Your task to perform on an android device: Open eBay Image 0: 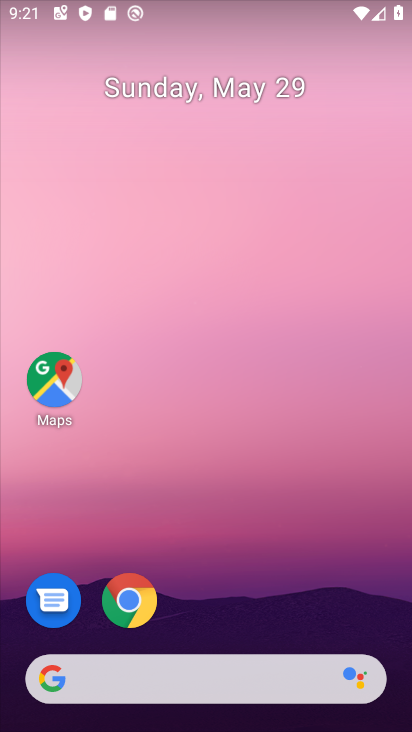
Step 0: click (121, 593)
Your task to perform on an android device: Open eBay Image 1: 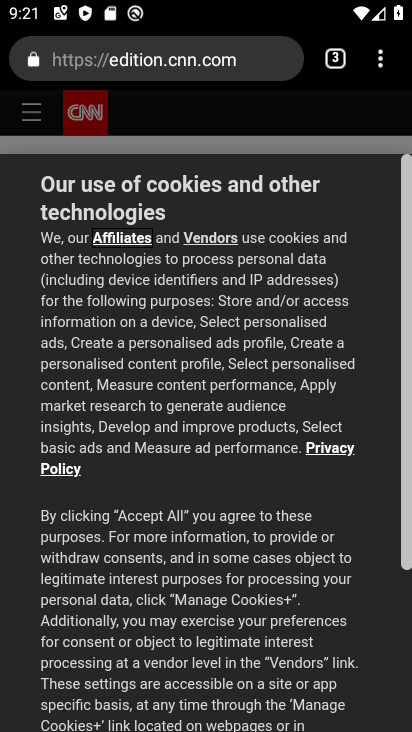
Step 1: click (382, 67)
Your task to perform on an android device: Open eBay Image 2: 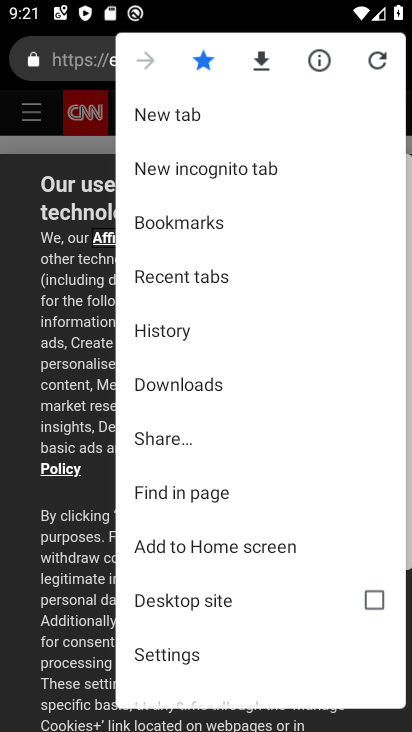
Step 2: click (172, 114)
Your task to perform on an android device: Open eBay Image 3: 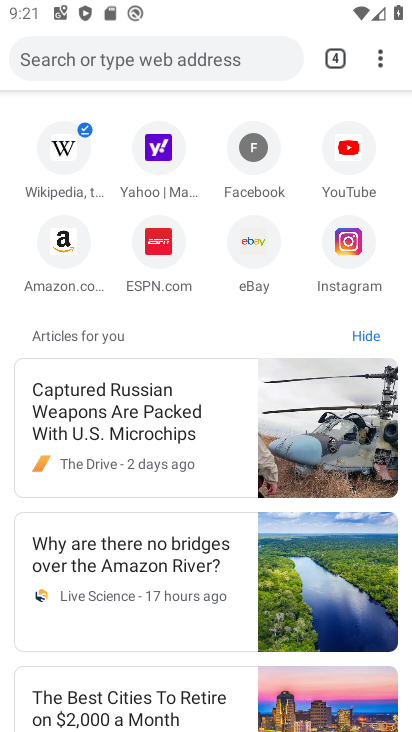
Step 3: click (259, 250)
Your task to perform on an android device: Open eBay Image 4: 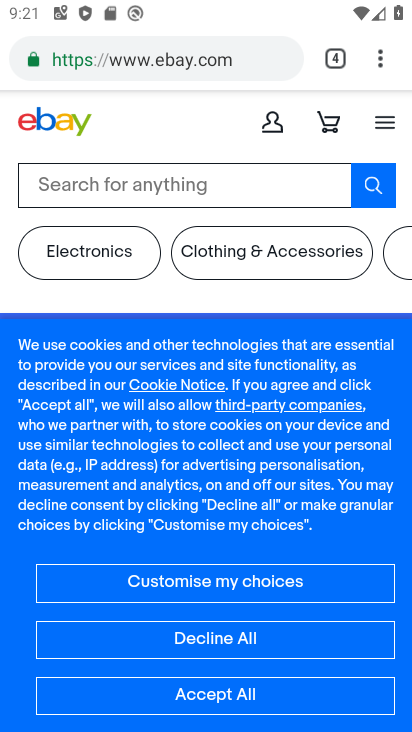
Step 4: task complete